Your task to perform on an android device: turn off improve location accuracy Image 0: 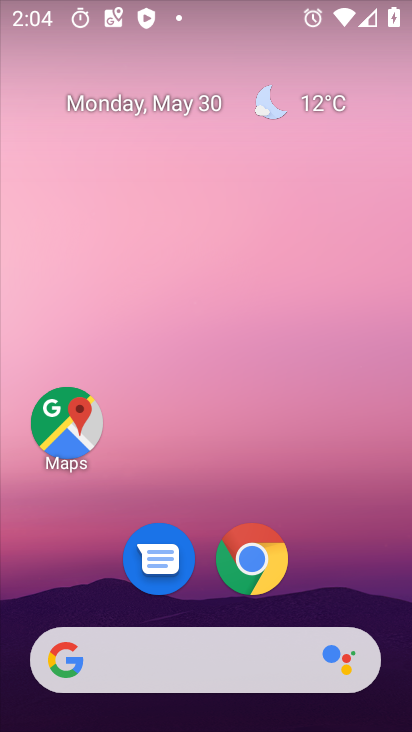
Step 0: drag from (212, 454) to (230, 96)
Your task to perform on an android device: turn off improve location accuracy Image 1: 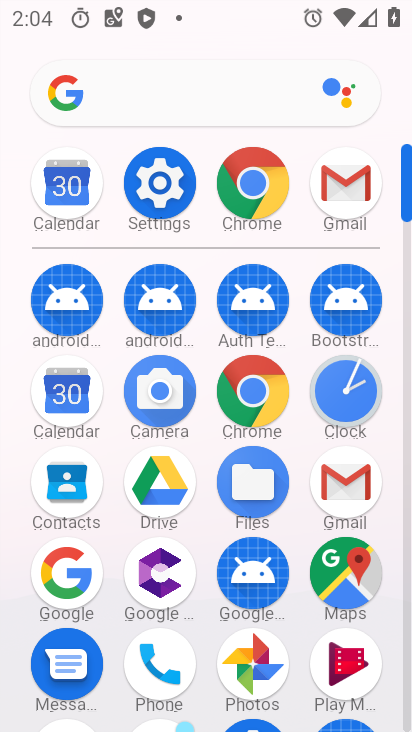
Step 1: click (154, 165)
Your task to perform on an android device: turn off improve location accuracy Image 2: 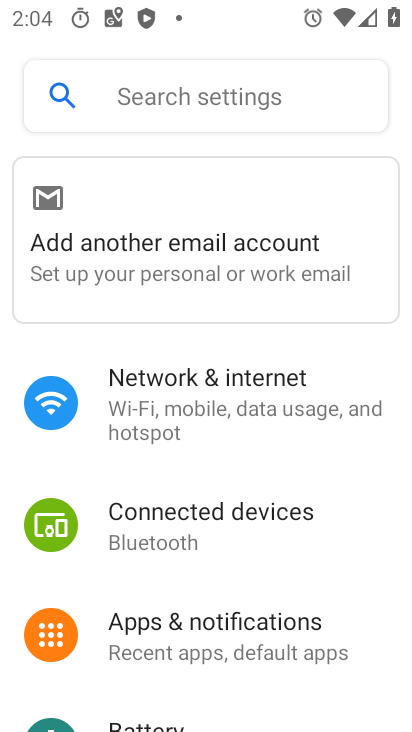
Step 2: drag from (168, 684) to (224, 120)
Your task to perform on an android device: turn off improve location accuracy Image 3: 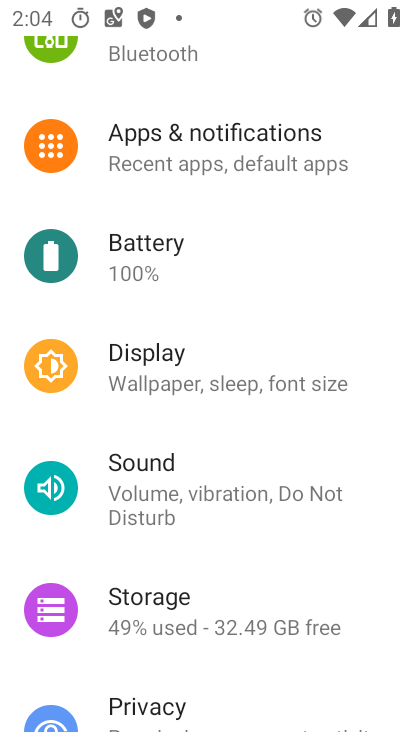
Step 3: drag from (149, 671) to (202, 222)
Your task to perform on an android device: turn off improve location accuracy Image 4: 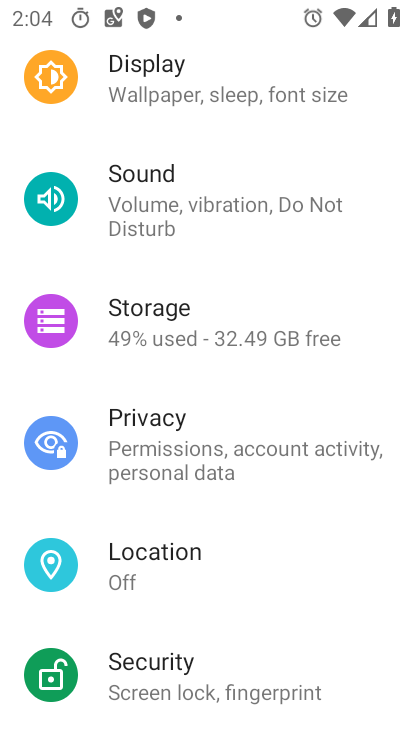
Step 4: click (159, 567)
Your task to perform on an android device: turn off improve location accuracy Image 5: 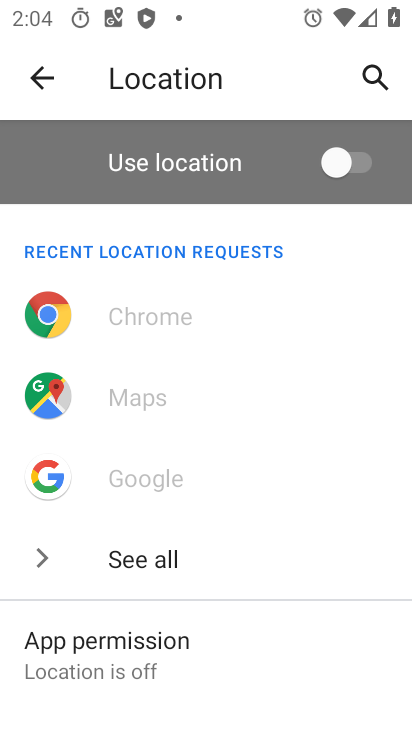
Step 5: drag from (135, 663) to (266, 225)
Your task to perform on an android device: turn off improve location accuracy Image 6: 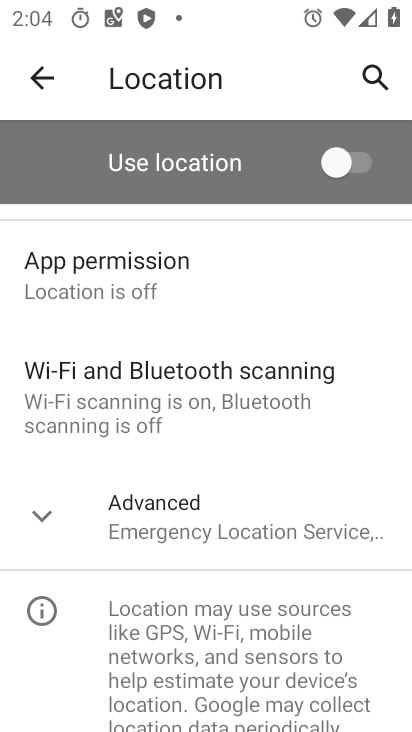
Step 6: click (214, 524)
Your task to perform on an android device: turn off improve location accuracy Image 7: 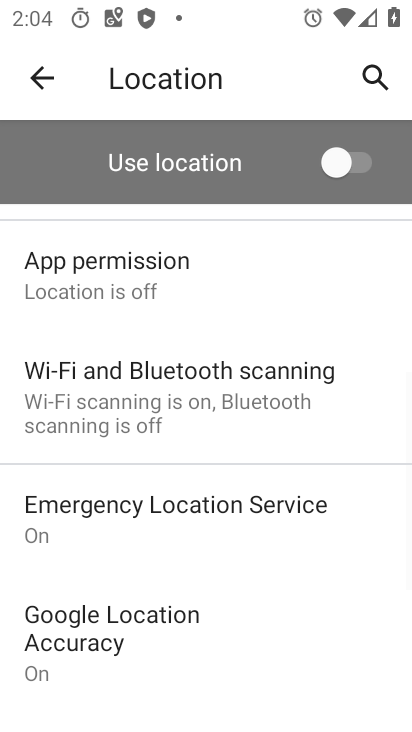
Step 7: click (143, 639)
Your task to perform on an android device: turn off improve location accuracy Image 8: 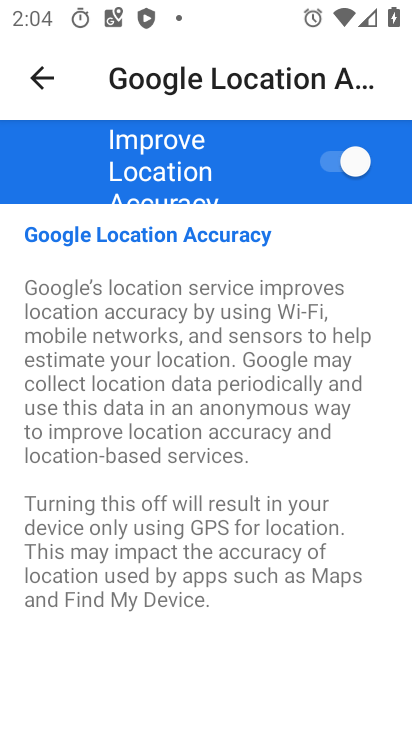
Step 8: click (346, 155)
Your task to perform on an android device: turn off improve location accuracy Image 9: 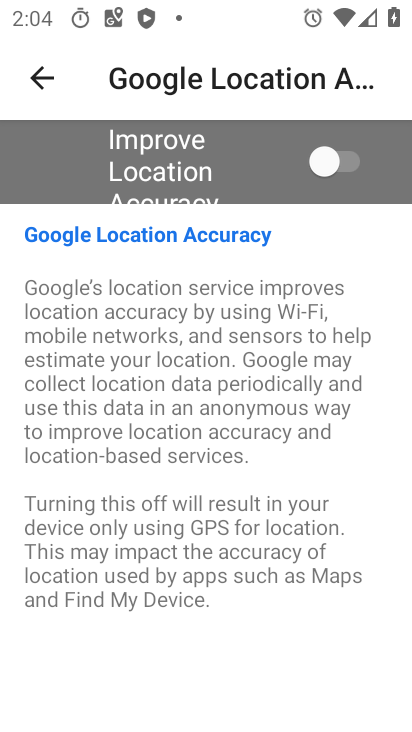
Step 9: task complete